Your task to perform on an android device: Do I have any events tomorrow? Image 0: 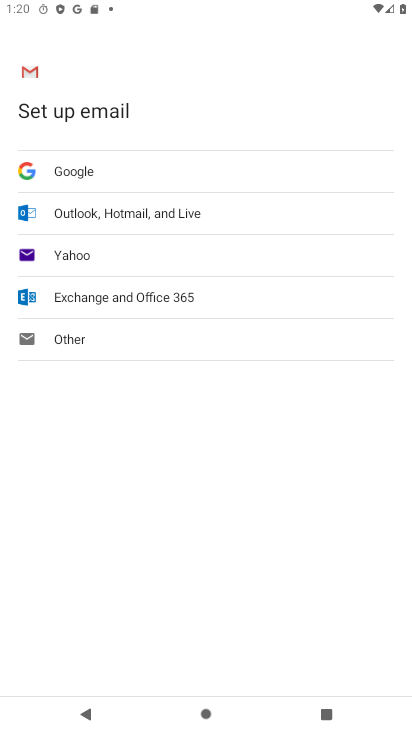
Step 0: press home button
Your task to perform on an android device: Do I have any events tomorrow? Image 1: 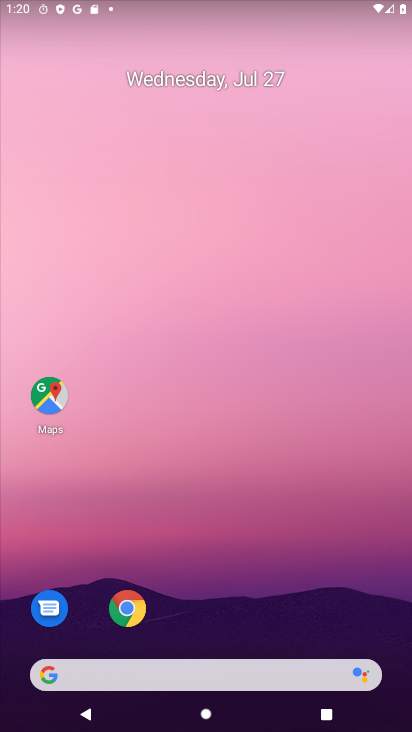
Step 1: drag from (233, 474) to (233, 75)
Your task to perform on an android device: Do I have any events tomorrow? Image 2: 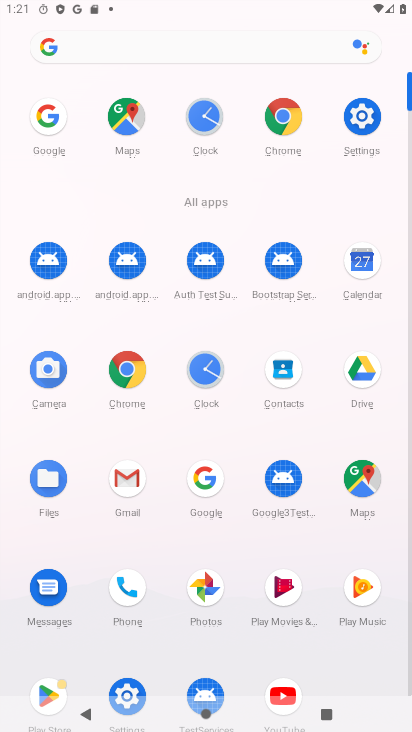
Step 2: click (365, 258)
Your task to perform on an android device: Do I have any events tomorrow? Image 3: 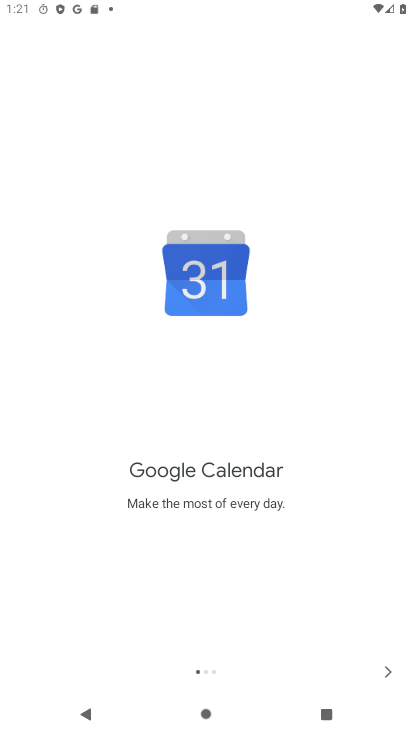
Step 3: click (385, 669)
Your task to perform on an android device: Do I have any events tomorrow? Image 4: 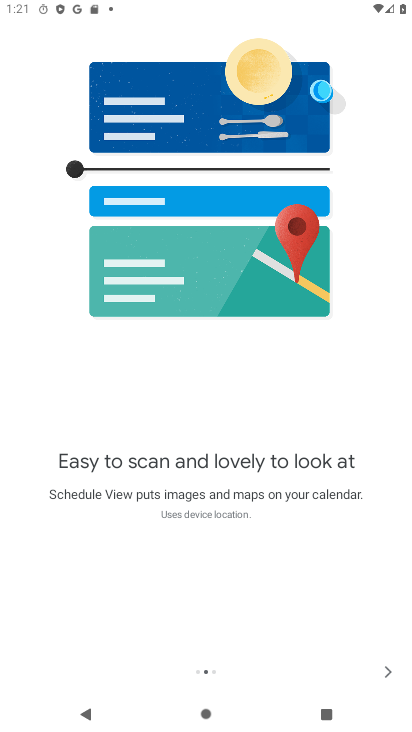
Step 4: click (385, 669)
Your task to perform on an android device: Do I have any events tomorrow? Image 5: 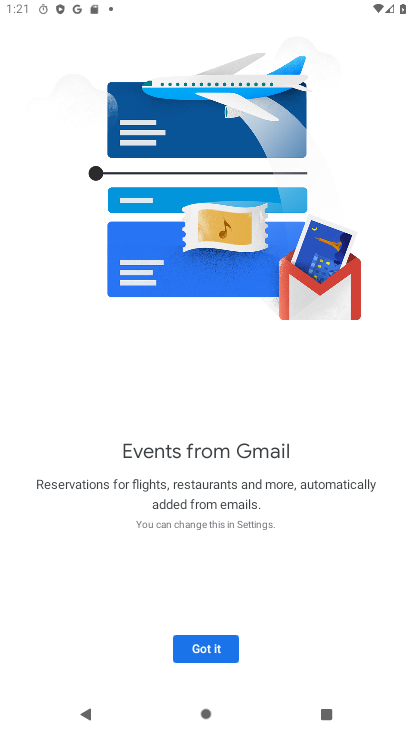
Step 5: click (202, 652)
Your task to perform on an android device: Do I have any events tomorrow? Image 6: 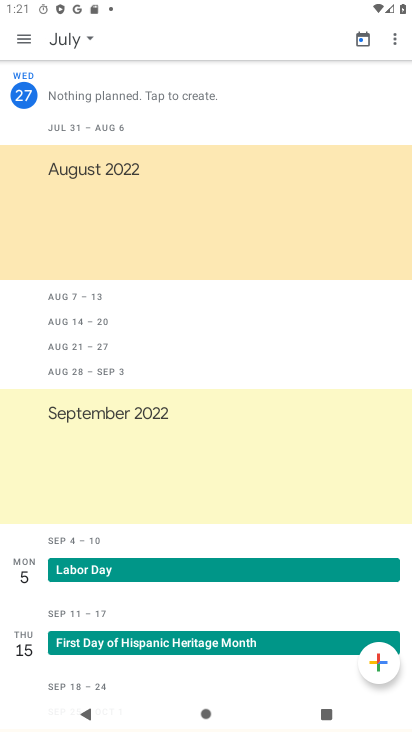
Step 6: click (72, 34)
Your task to perform on an android device: Do I have any events tomorrow? Image 7: 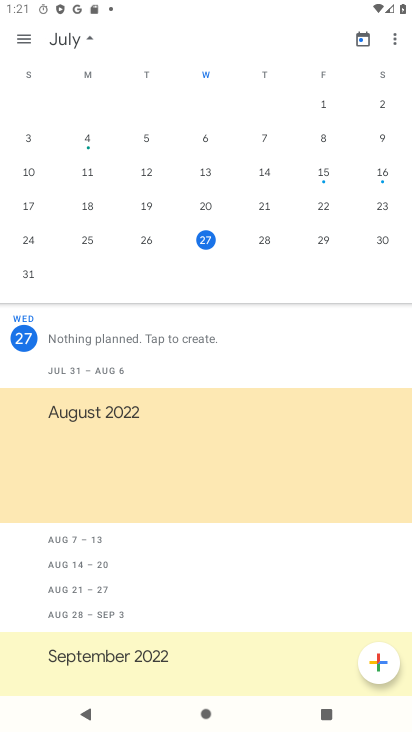
Step 7: click (264, 238)
Your task to perform on an android device: Do I have any events tomorrow? Image 8: 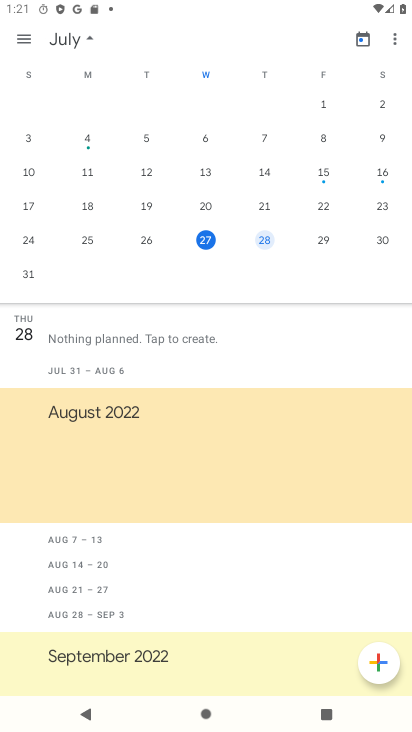
Step 8: task complete